Your task to perform on an android device: change timer sound Image 0: 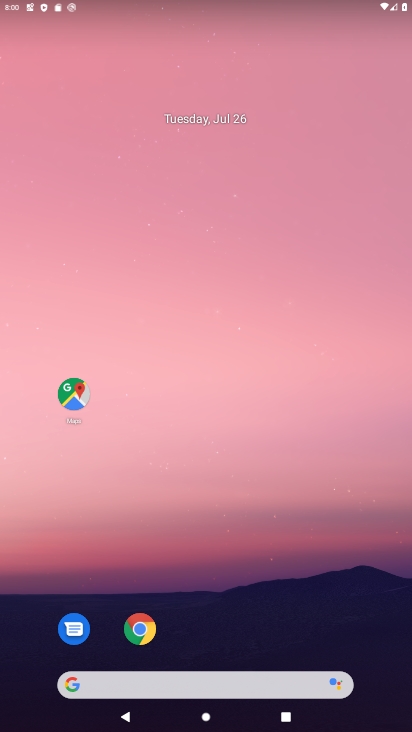
Step 0: press home button
Your task to perform on an android device: change timer sound Image 1: 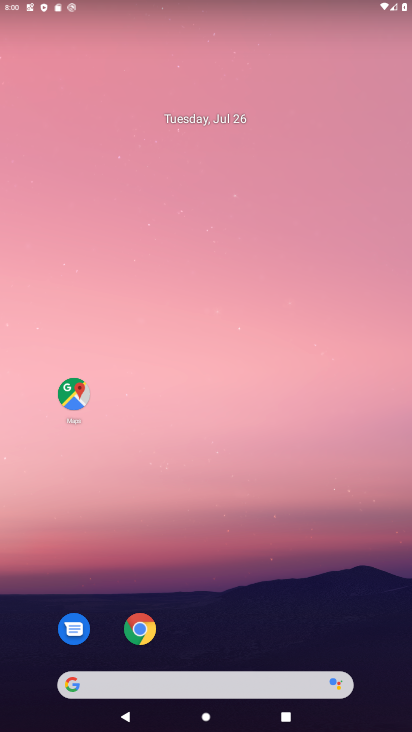
Step 1: drag from (224, 646) to (192, 70)
Your task to perform on an android device: change timer sound Image 2: 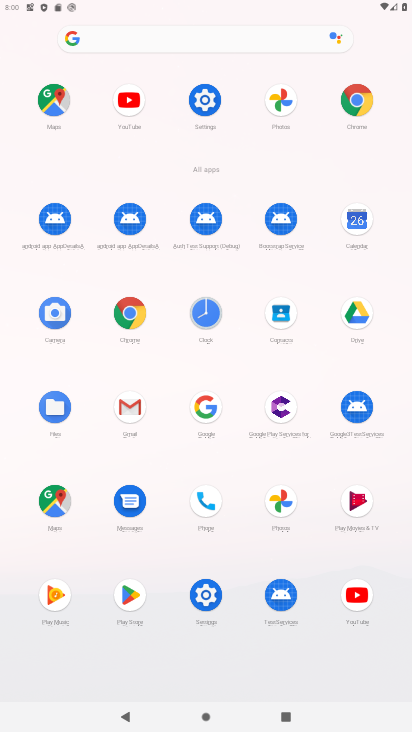
Step 2: click (202, 307)
Your task to perform on an android device: change timer sound Image 3: 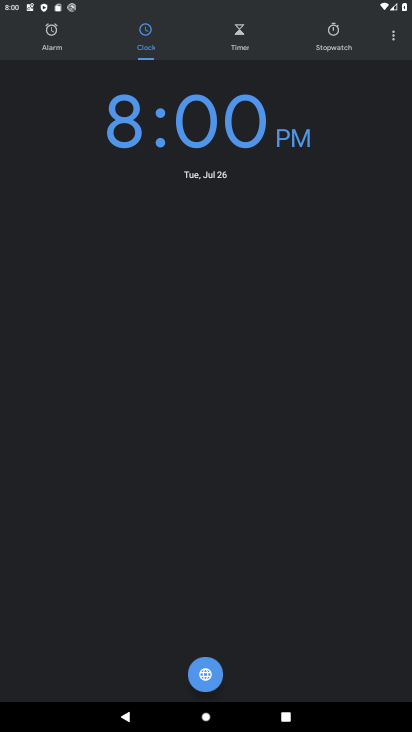
Step 3: click (396, 34)
Your task to perform on an android device: change timer sound Image 4: 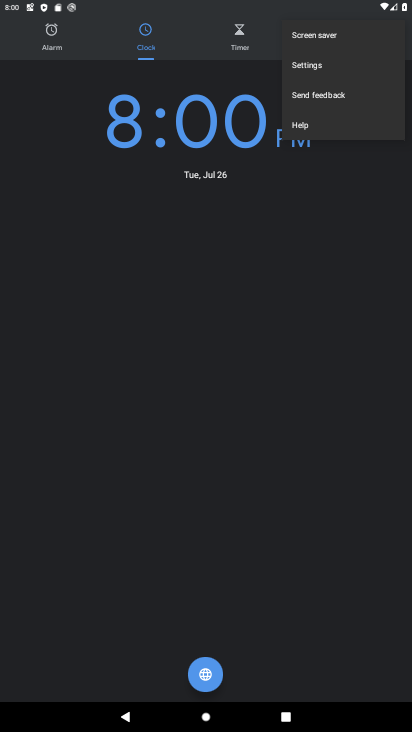
Step 4: click (331, 65)
Your task to perform on an android device: change timer sound Image 5: 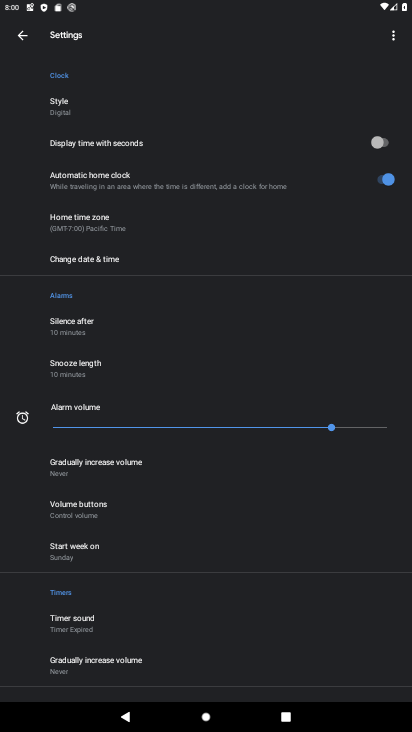
Step 5: click (114, 623)
Your task to perform on an android device: change timer sound Image 6: 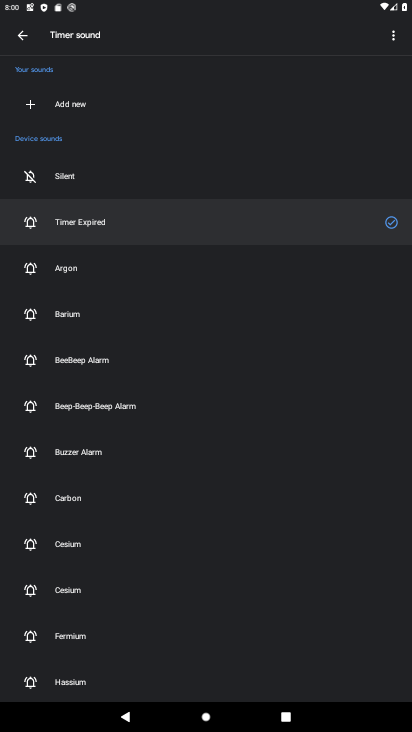
Step 6: click (91, 586)
Your task to perform on an android device: change timer sound Image 7: 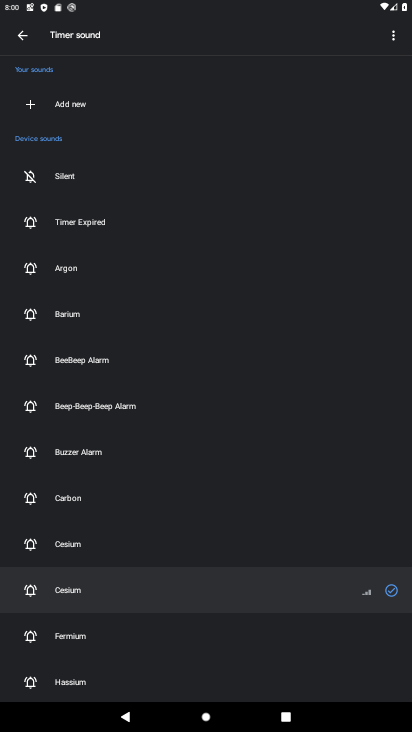
Step 7: task complete